Your task to perform on an android device: turn notification dots off Image 0: 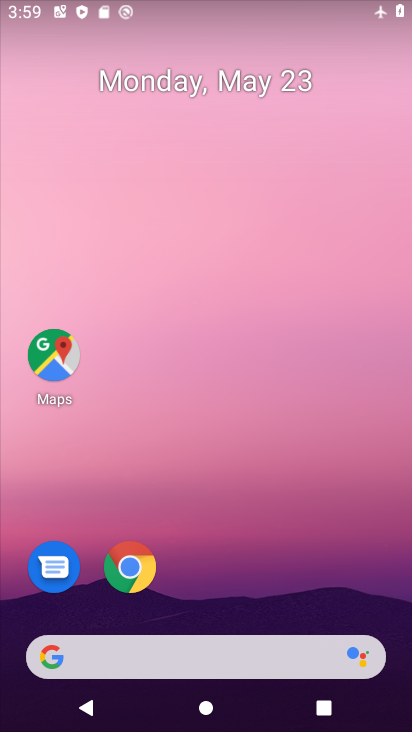
Step 0: drag from (401, 626) to (303, 120)
Your task to perform on an android device: turn notification dots off Image 1: 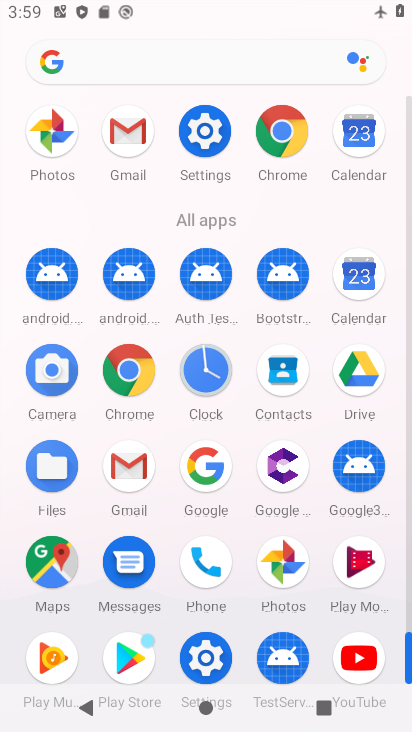
Step 1: click (206, 656)
Your task to perform on an android device: turn notification dots off Image 2: 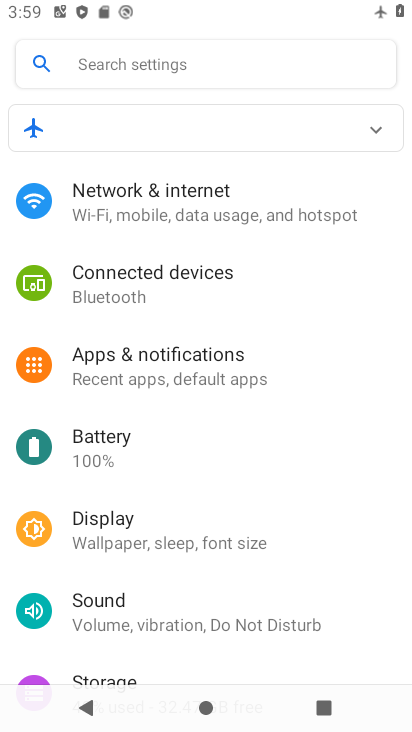
Step 2: click (182, 361)
Your task to perform on an android device: turn notification dots off Image 3: 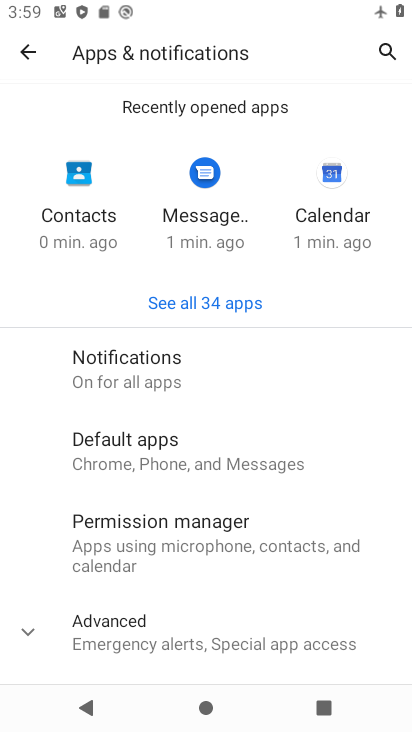
Step 3: drag from (274, 639) to (262, 273)
Your task to perform on an android device: turn notification dots off Image 4: 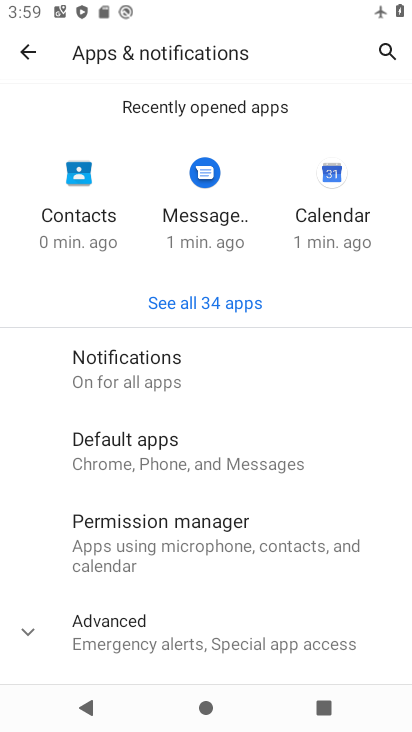
Step 4: click (104, 374)
Your task to perform on an android device: turn notification dots off Image 5: 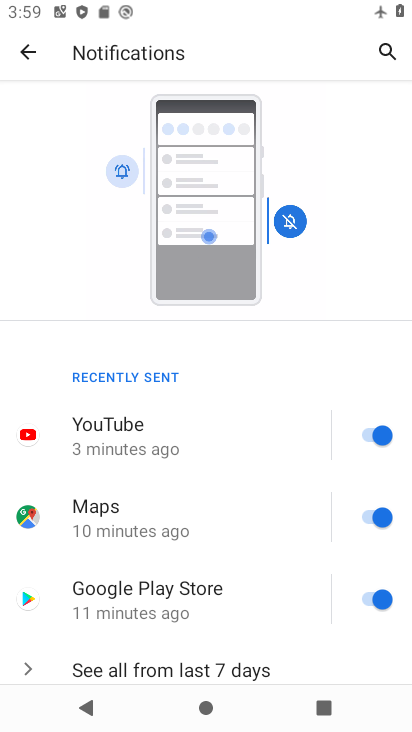
Step 5: drag from (294, 607) to (180, 12)
Your task to perform on an android device: turn notification dots off Image 6: 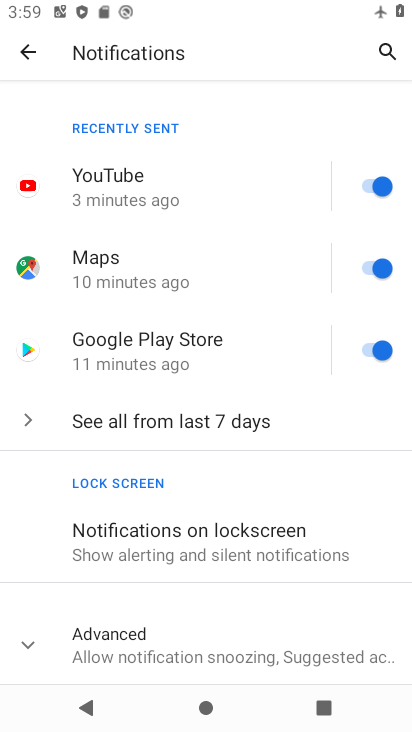
Step 6: click (118, 649)
Your task to perform on an android device: turn notification dots off Image 7: 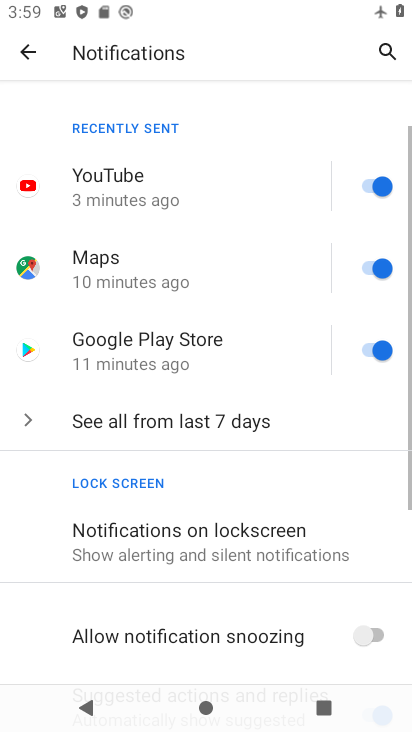
Step 7: drag from (175, 652) to (173, 232)
Your task to perform on an android device: turn notification dots off Image 8: 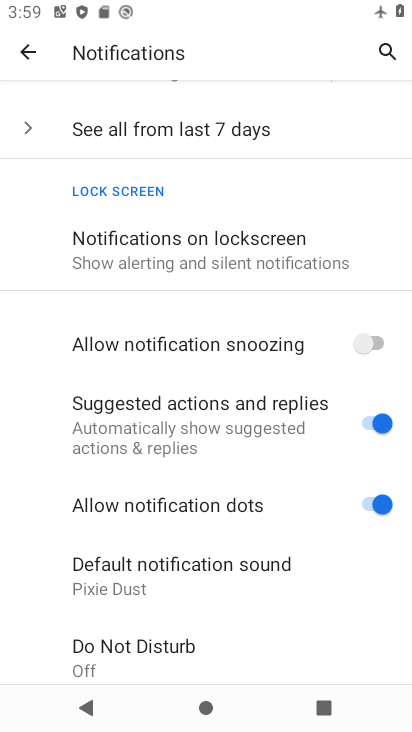
Step 8: click (359, 498)
Your task to perform on an android device: turn notification dots off Image 9: 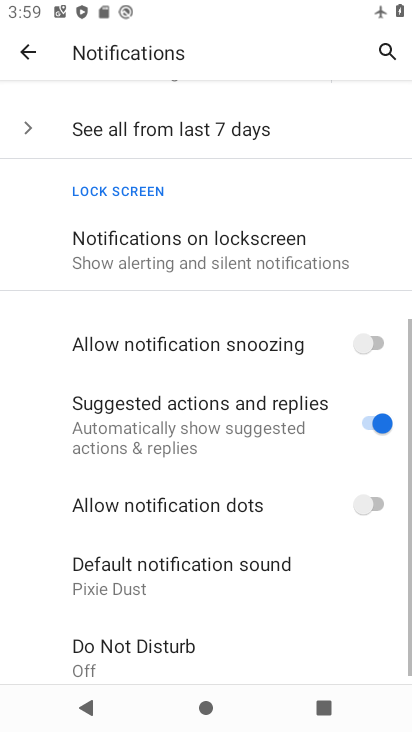
Step 9: task complete